Your task to perform on an android device: turn on javascript in the chrome app Image 0: 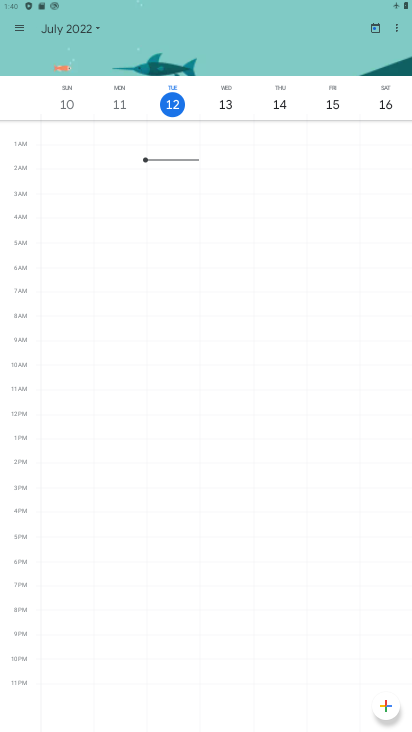
Step 0: press home button
Your task to perform on an android device: turn on javascript in the chrome app Image 1: 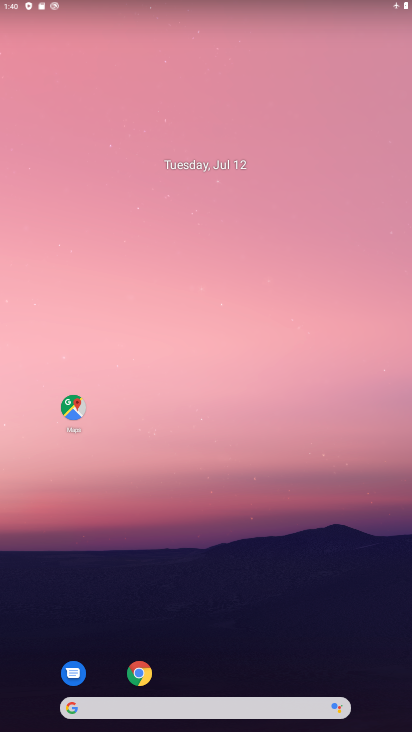
Step 1: drag from (171, 707) to (170, 358)
Your task to perform on an android device: turn on javascript in the chrome app Image 2: 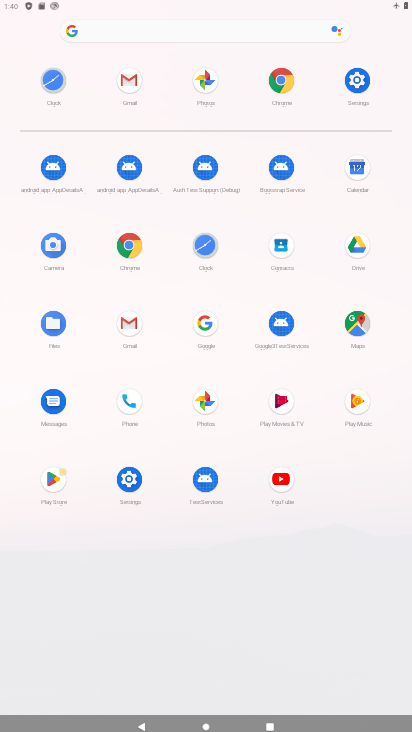
Step 2: click (273, 78)
Your task to perform on an android device: turn on javascript in the chrome app Image 3: 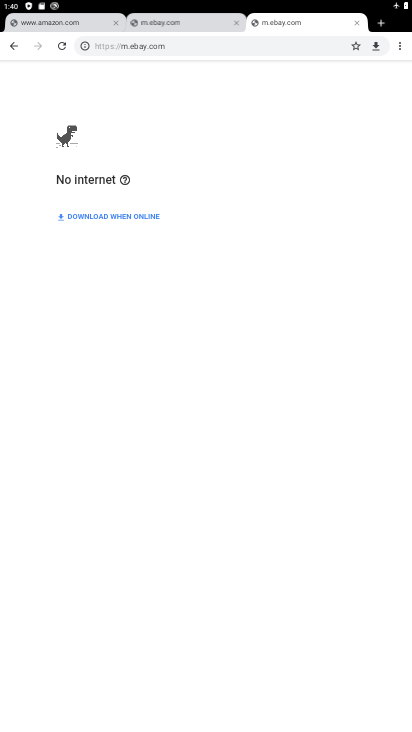
Step 3: click (395, 42)
Your task to perform on an android device: turn on javascript in the chrome app Image 4: 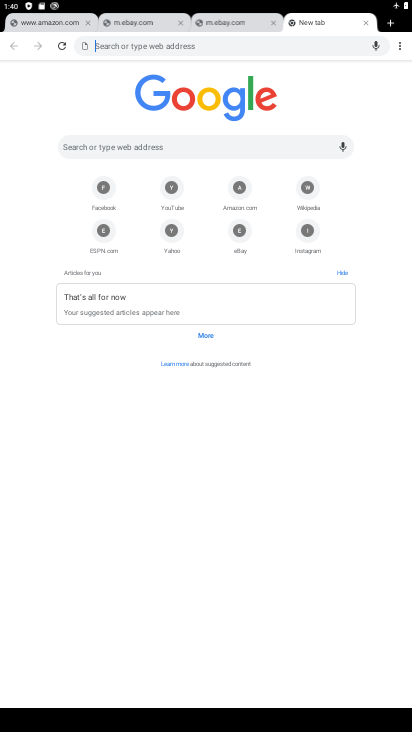
Step 4: click (404, 46)
Your task to perform on an android device: turn on javascript in the chrome app Image 5: 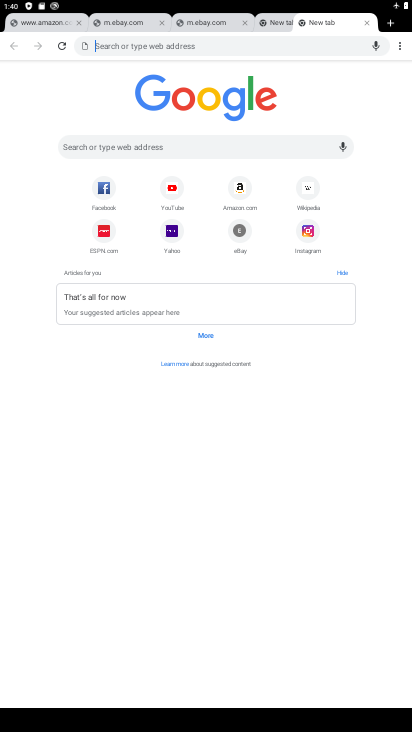
Step 5: click (395, 40)
Your task to perform on an android device: turn on javascript in the chrome app Image 6: 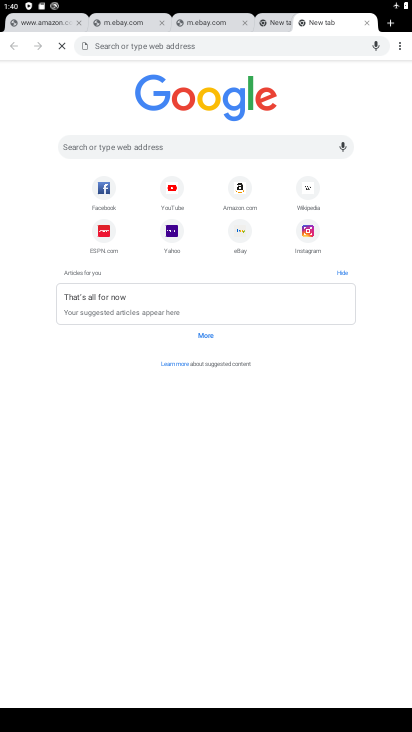
Step 6: click (395, 40)
Your task to perform on an android device: turn on javascript in the chrome app Image 7: 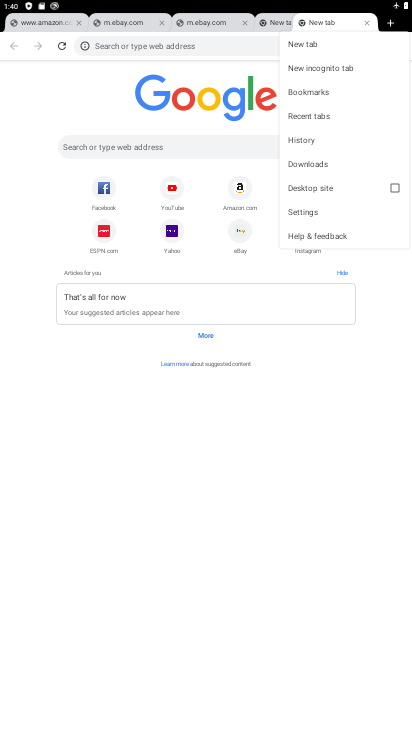
Step 7: click (300, 203)
Your task to perform on an android device: turn on javascript in the chrome app Image 8: 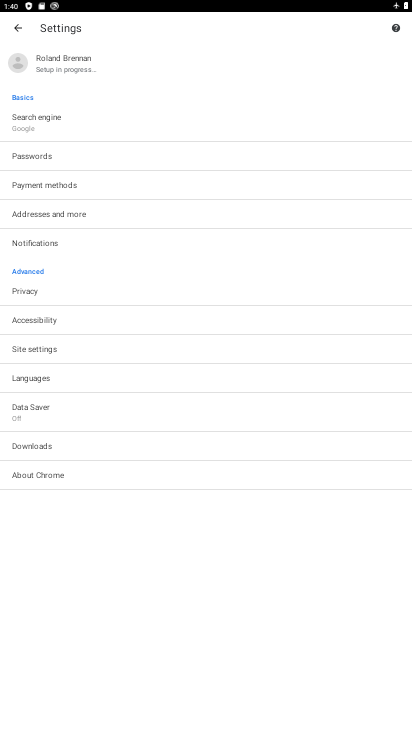
Step 8: click (53, 352)
Your task to perform on an android device: turn on javascript in the chrome app Image 9: 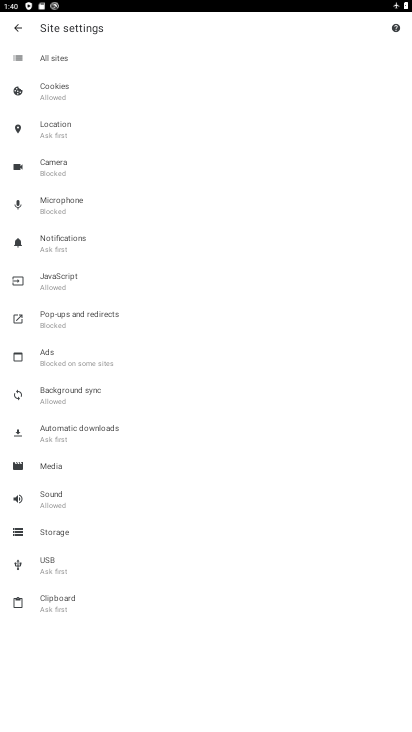
Step 9: click (78, 270)
Your task to perform on an android device: turn on javascript in the chrome app Image 10: 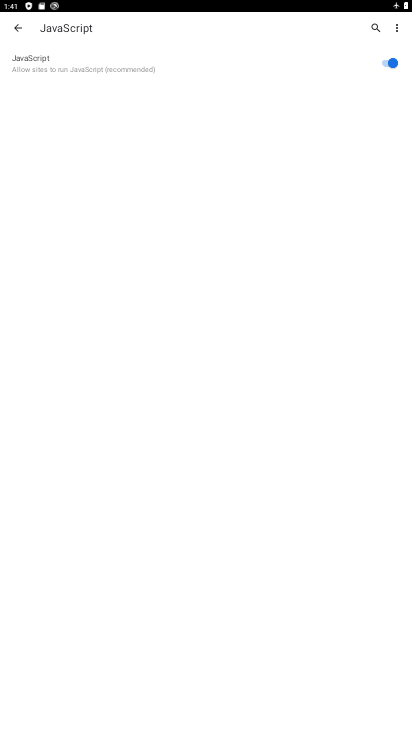
Step 10: task complete